Your task to perform on an android device: Search for Italian restaurants on Maps Image 0: 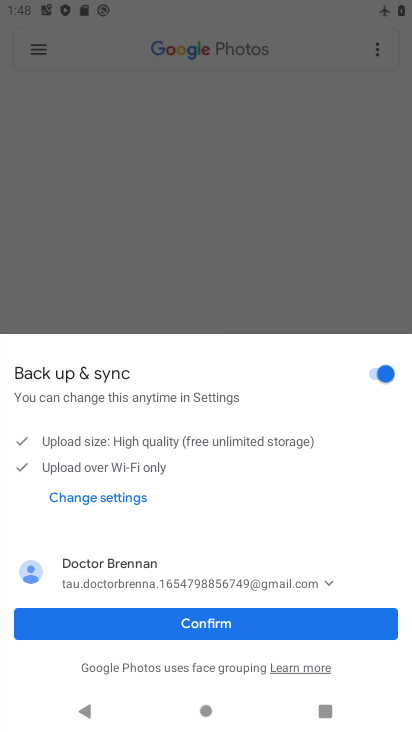
Step 0: press home button
Your task to perform on an android device: Search for Italian restaurants on Maps Image 1: 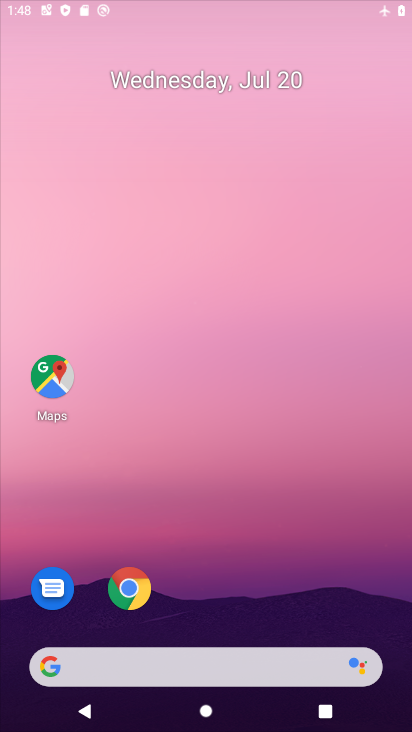
Step 1: drag from (238, 574) to (217, 1)
Your task to perform on an android device: Search for Italian restaurants on Maps Image 2: 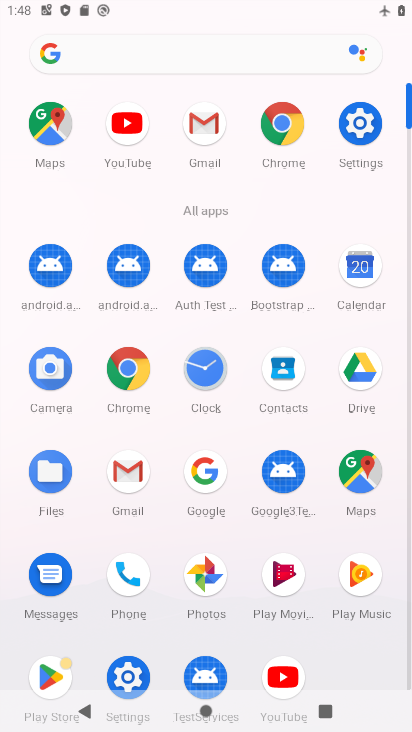
Step 2: click (45, 118)
Your task to perform on an android device: Search for Italian restaurants on Maps Image 3: 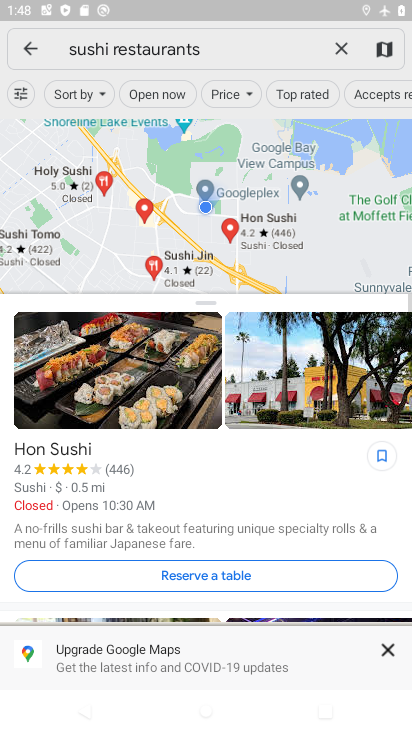
Step 3: click (32, 51)
Your task to perform on an android device: Search for Italian restaurants on Maps Image 4: 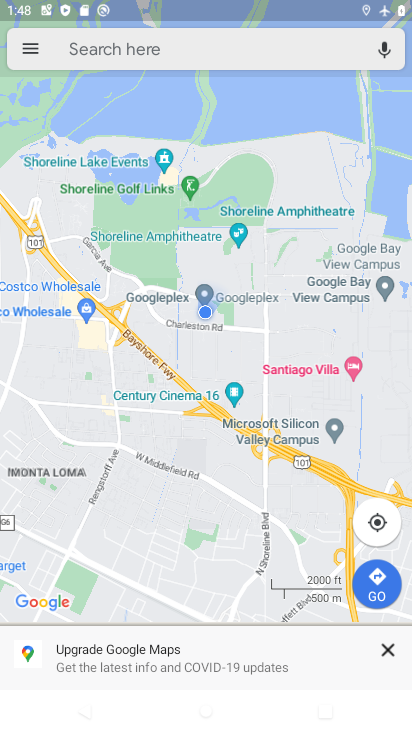
Step 4: click (299, 54)
Your task to perform on an android device: Search for Italian restaurants on Maps Image 5: 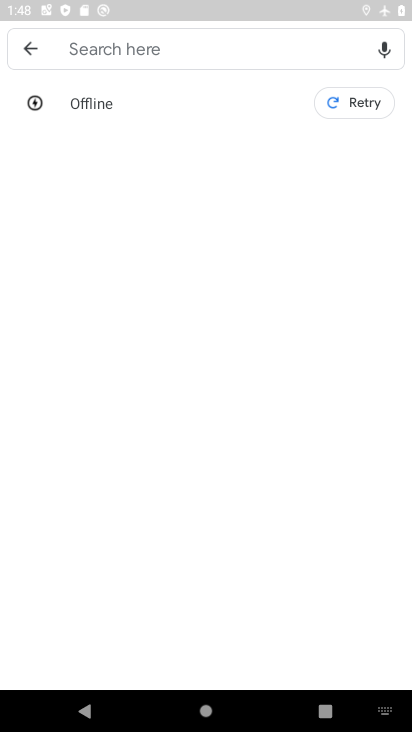
Step 5: type " Italian restaurants"
Your task to perform on an android device: Search for Italian restaurants on Maps Image 6: 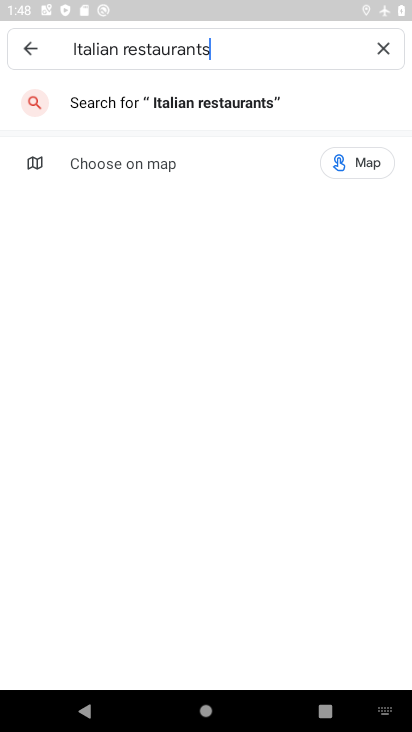
Step 6: press enter
Your task to perform on an android device: Search for Italian restaurants on Maps Image 7: 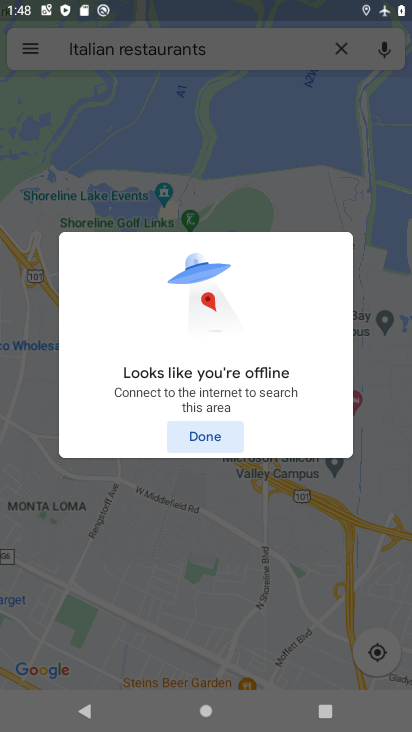
Step 7: click (202, 105)
Your task to perform on an android device: Search for Italian restaurants on Maps Image 8: 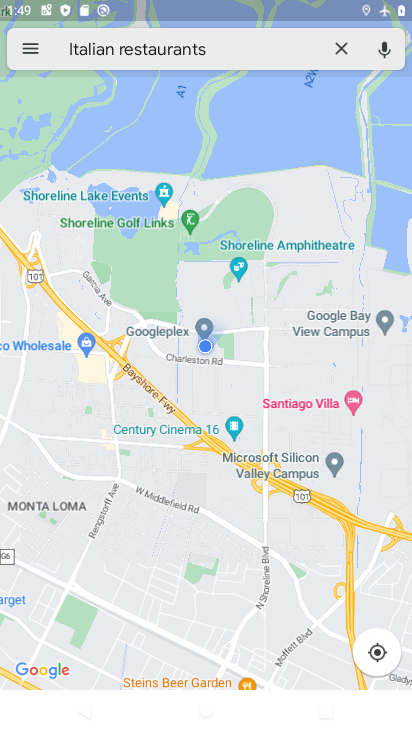
Step 8: click (223, 102)
Your task to perform on an android device: Search for Italian restaurants on Maps Image 9: 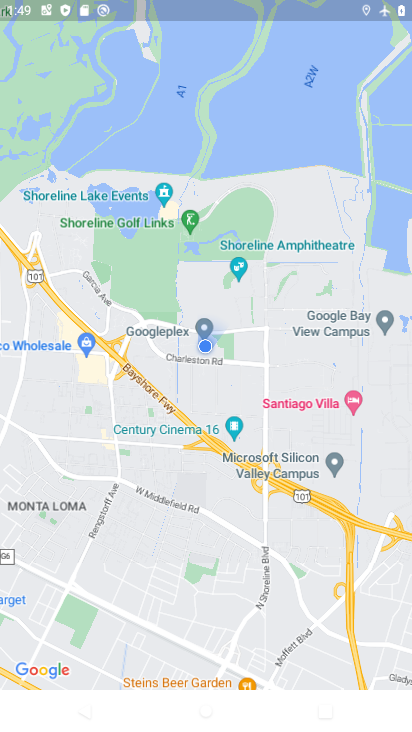
Step 9: task complete